Your task to perform on an android device: What's the weather going to be tomorrow? Image 0: 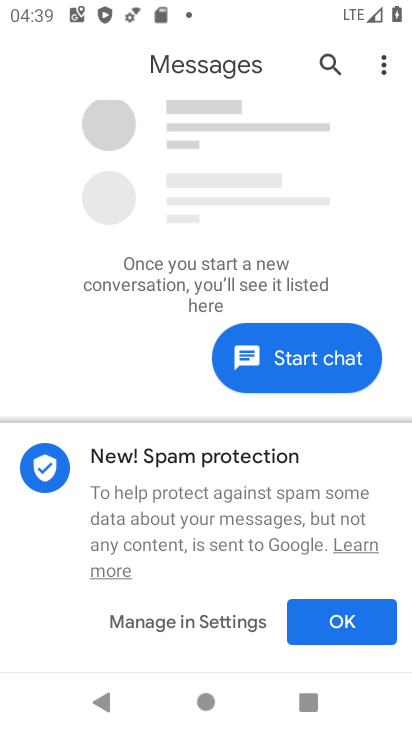
Step 0: press home button
Your task to perform on an android device: What's the weather going to be tomorrow? Image 1: 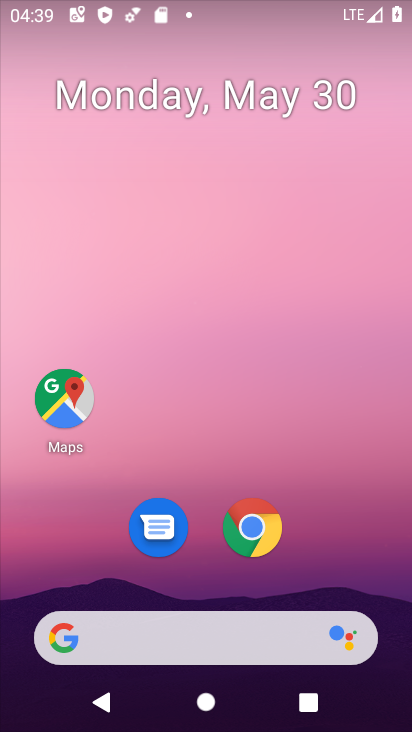
Step 1: drag from (226, 723) to (220, 2)
Your task to perform on an android device: What's the weather going to be tomorrow? Image 2: 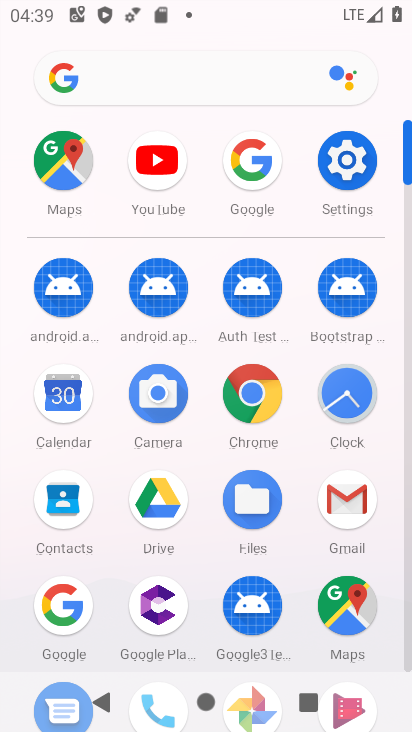
Step 2: click (49, 597)
Your task to perform on an android device: What's the weather going to be tomorrow? Image 3: 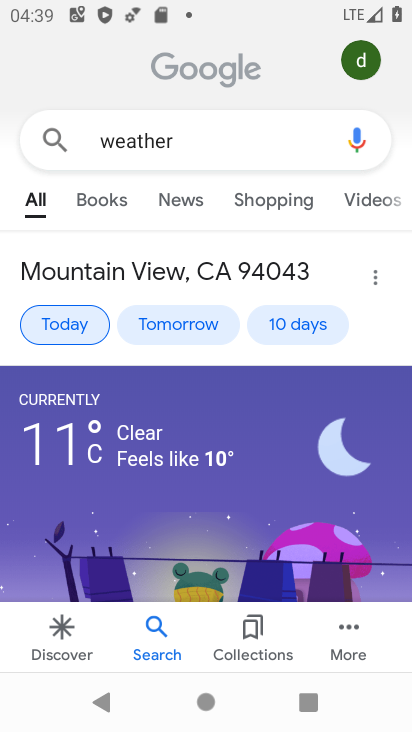
Step 3: click (180, 325)
Your task to perform on an android device: What's the weather going to be tomorrow? Image 4: 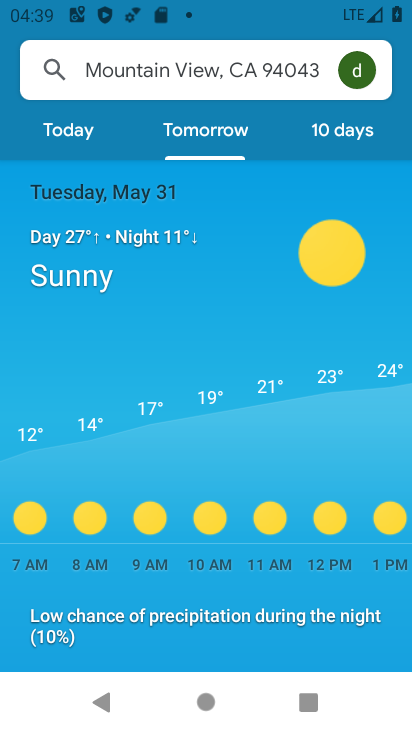
Step 4: task complete